Your task to perform on an android device: Open maps Image 0: 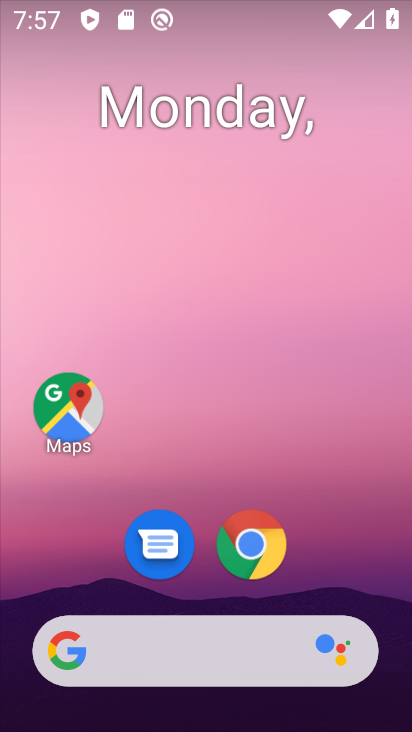
Step 0: click (80, 416)
Your task to perform on an android device: Open maps Image 1: 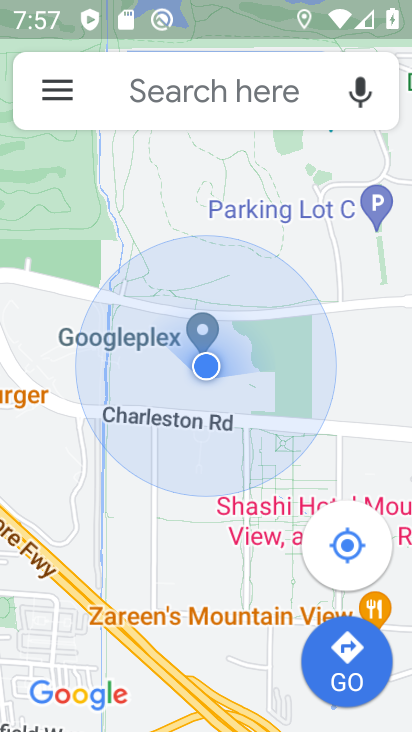
Step 1: task complete